Your task to perform on an android device: turn on translation in the chrome app Image 0: 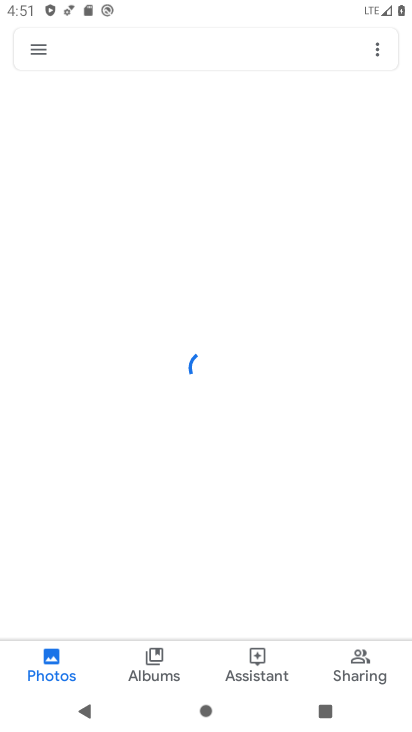
Step 0: press home button
Your task to perform on an android device: turn on translation in the chrome app Image 1: 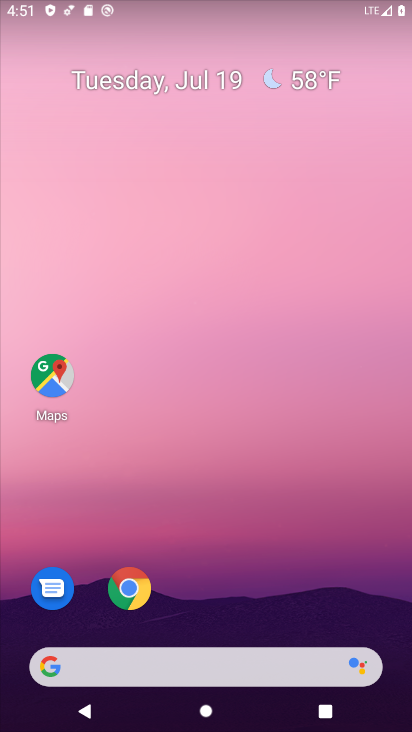
Step 1: drag from (243, 419) to (210, 181)
Your task to perform on an android device: turn on translation in the chrome app Image 2: 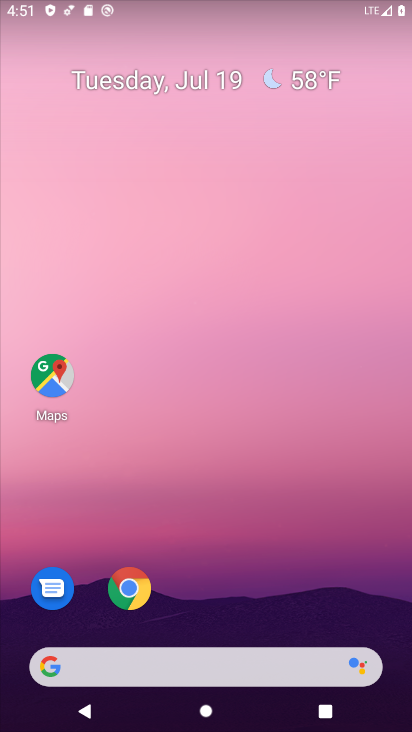
Step 2: drag from (248, 585) to (181, 117)
Your task to perform on an android device: turn on translation in the chrome app Image 3: 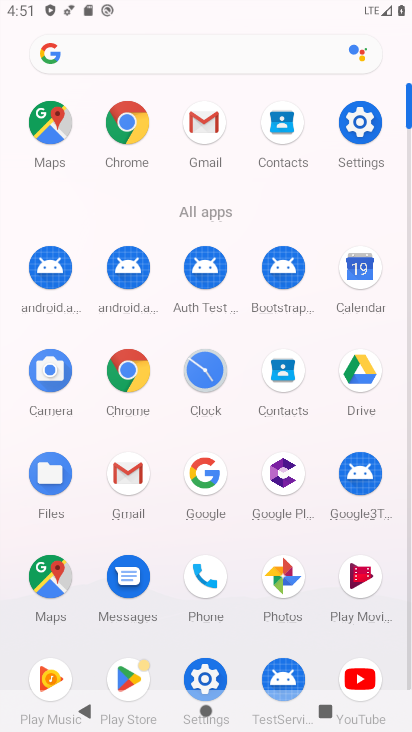
Step 3: click (132, 130)
Your task to perform on an android device: turn on translation in the chrome app Image 4: 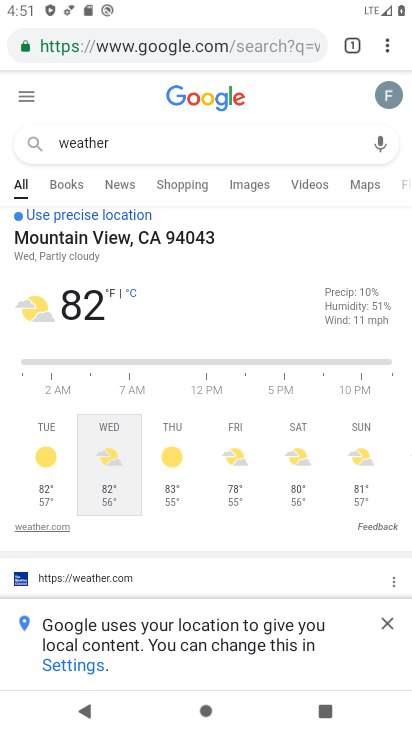
Step 4: drag from (380, 43) to (221, 549)
Your task to perform on an android device: turn on translation in the chrome app Image 5: 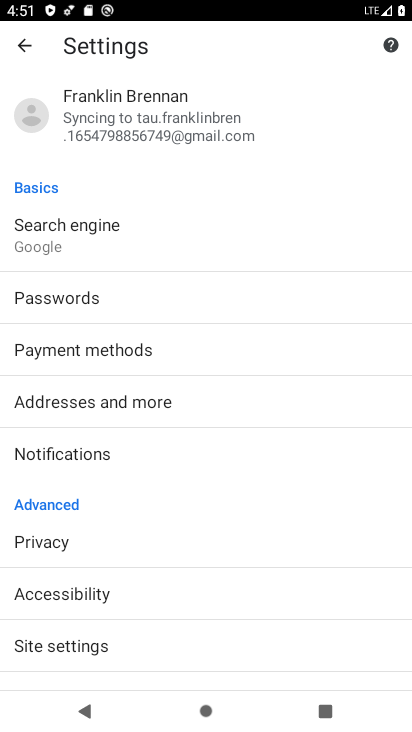
Step 5: drag from (110, 649) to (176, 286)
Your task to perform on an android device: turn on translation in the chrome app Image 6: 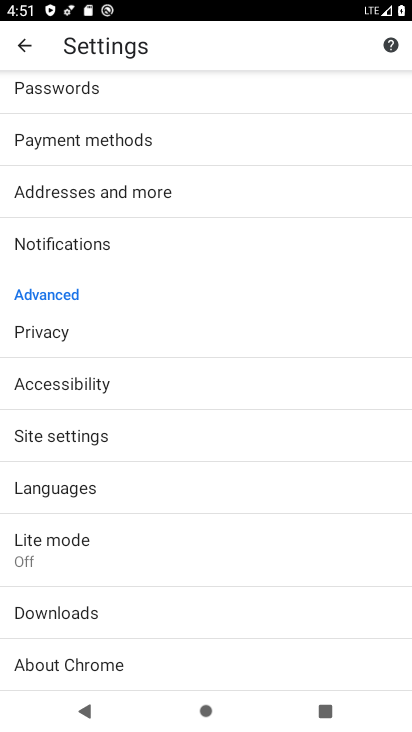
Step 6: click (78, 483)
Your task to perform on an android device: turn on translation in the chrome app Image 7: 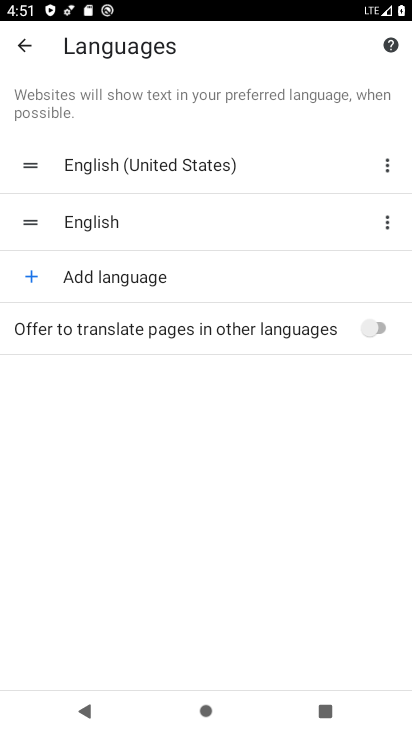
Step 7: click (364, 337)
Your task to perform on an android device: turn on translation in the chrome app Image 8: 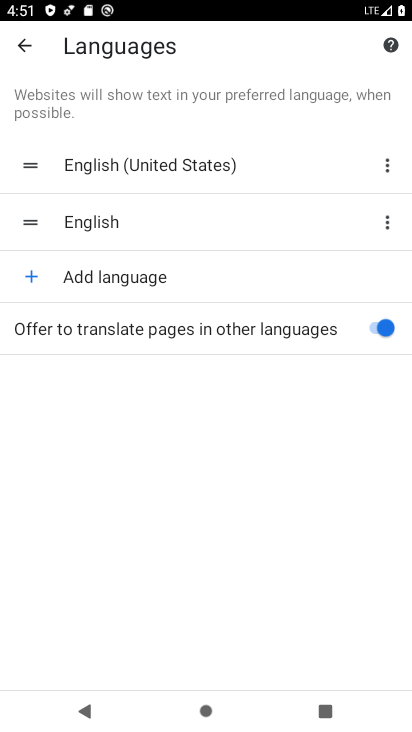
Step 8: task complete